Your task to perform on an android device: Open accessibility settings Image 0: 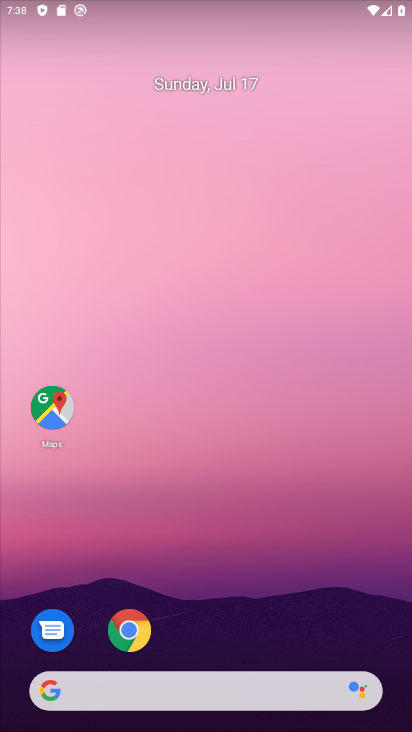
Step 0: click (380, 653)
Your task to perform on an android device: Open accessibility settings Image 1: 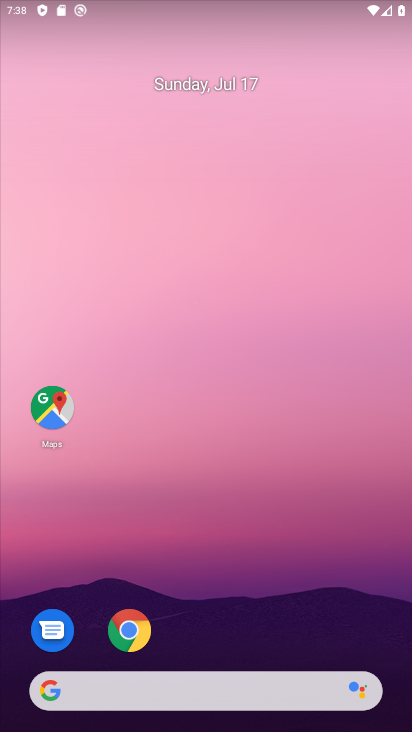
Step 1: drag from (130, 711) to (167, 161)
Your task to perform on an android device: Open accessibility settings Image 2: 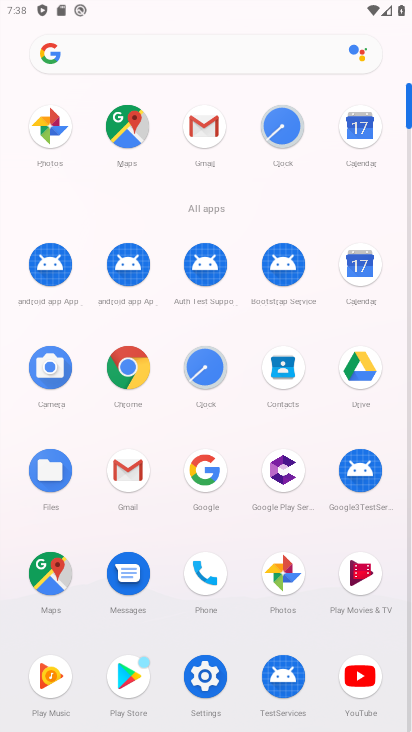
Step 2: click (204, 664)
Your task to perform on an android device: Open accessibility settings Image 3: 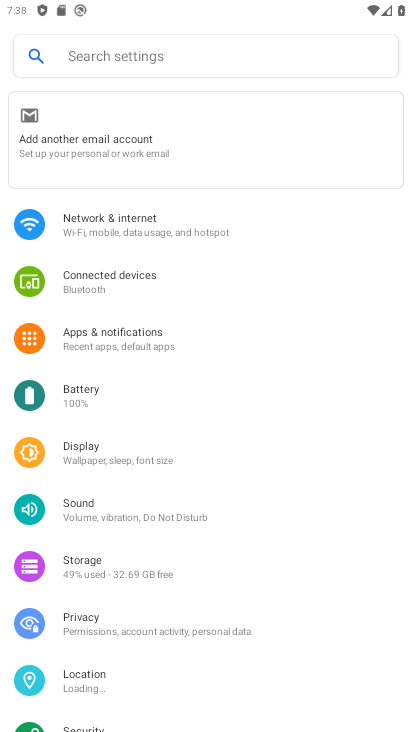
Step 3: drag from (158, 650) to (184, 31)
Your task to perform on an android device: Open accessibility settings Image 4: 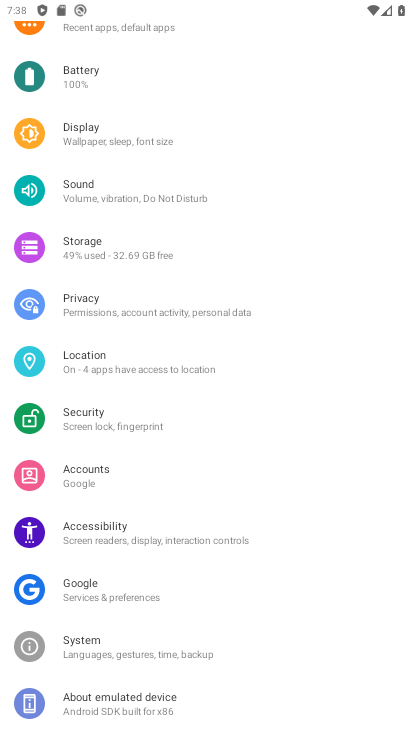
Step 4: click (98, 529)
Your task to perform on an android device: Open accessibility settings Image 5: 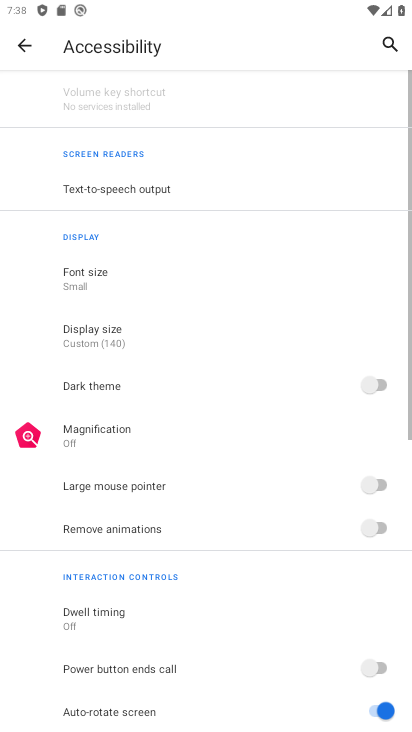
Step 5: task complete